Your task to perform on an android device: move a message to another label in the gmail app Image 0: 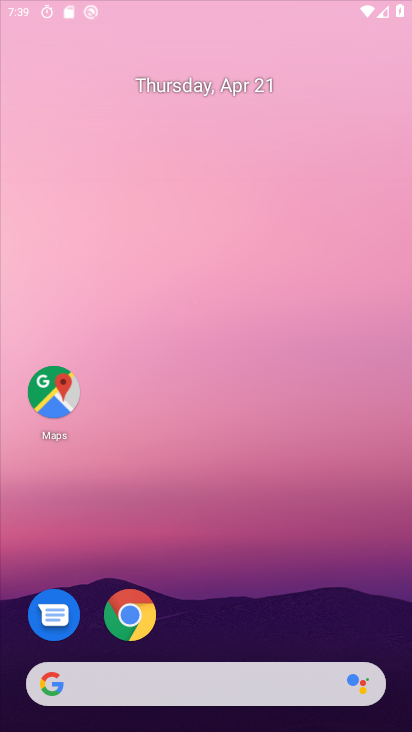
Step 0: drag from (236, 550) to (411, 26)
Your task to perform on an android device: move a message to another label in the gmail app Image 1: 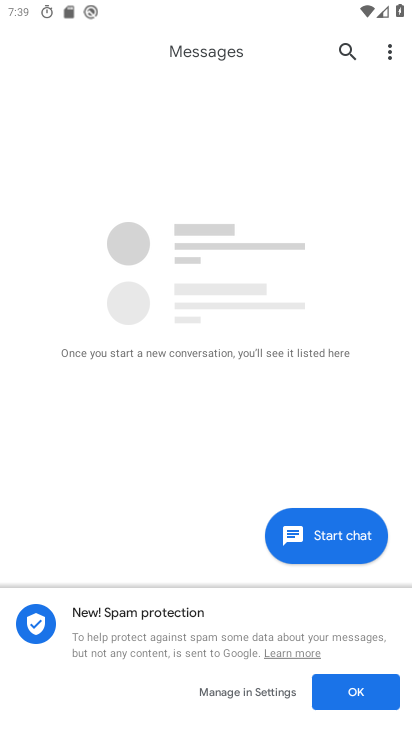
Step 1: press home button
Your task to perform on an android device: move a message to another label in the gmail app Image 2: 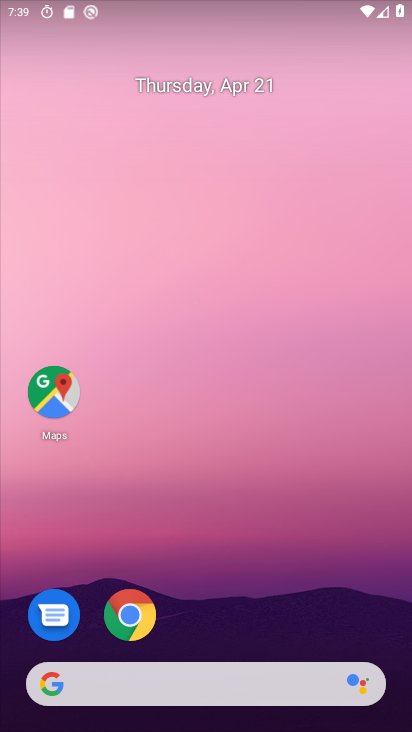
Step 2: drag from (145, 680) to (306, 152)
Your task to perform on an android device: move a message to another label in the gmail app Image 3: 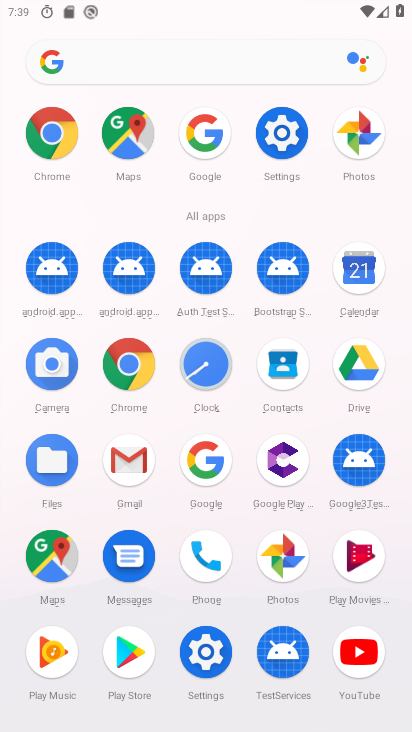
Step 3: click (131, 466)
Your task to perform on an android device: move a message to another label in the gmail app Image 4: 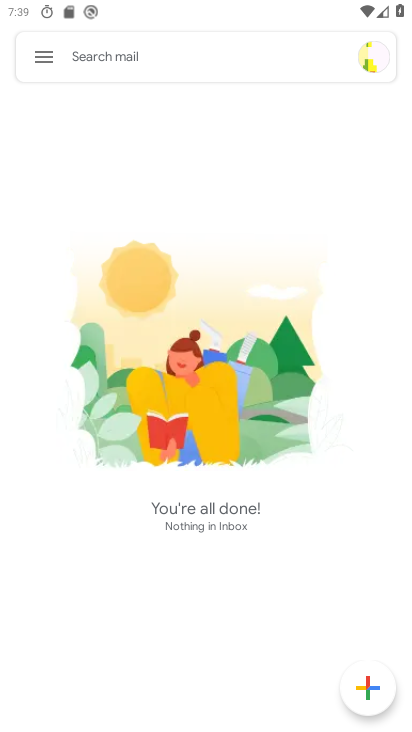
Step 4: task complete